Your task to perform on an android device: turn off notifications settings in the gmail app Image 0: 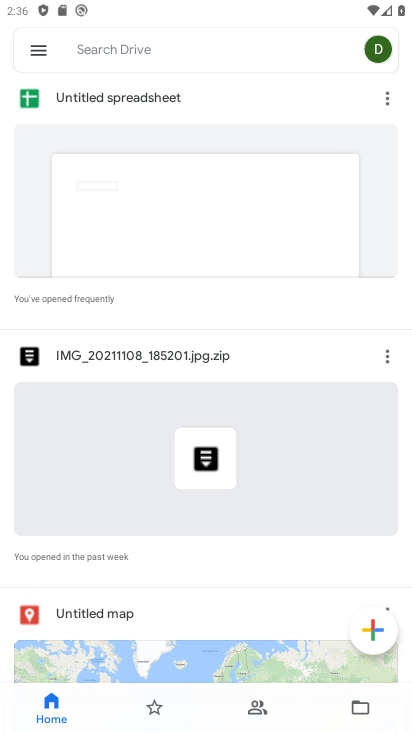
Step 0: press home button
Your task to perform on an android device: turn off notifications settings in the gmail app Image 1: 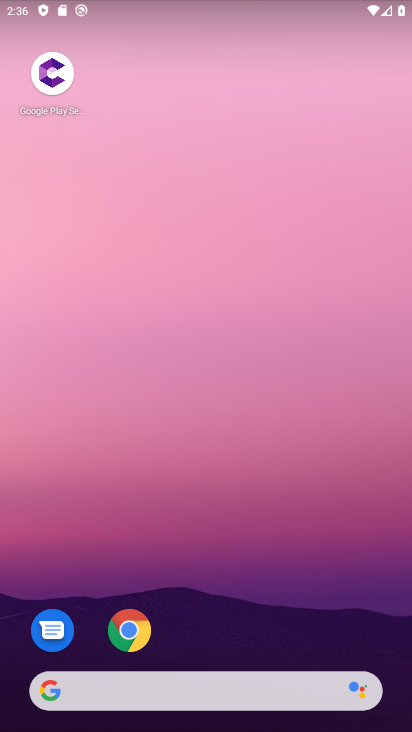
Step 1: drag from (153, 658) to (260, 136)
Your task to perform on an android device: turn off notifications settings in the gmail app Image 2: 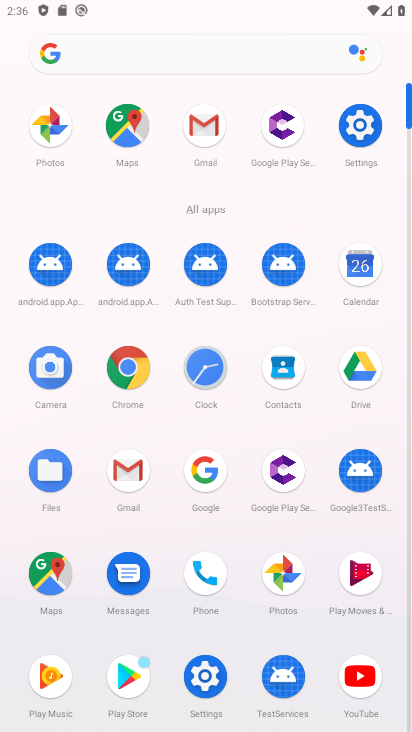
Step 2: click (119, 468)
Your task to perform on an android device: turn off notifications settings in the gmail app Image 3: 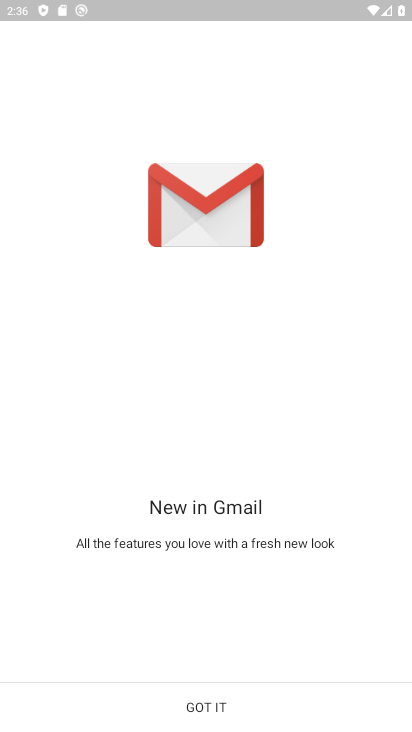
Step 3: click (229, 703)
Your task to perform on an android device: turn off notifications settings in the gmail app Image 4: 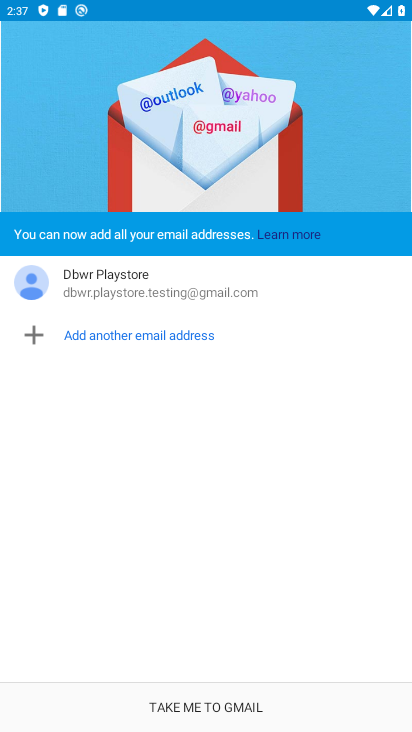
Step 4: click (239, 700)
Your task to perform on an android device: turn off notifications settings in the gmail app Image 5: 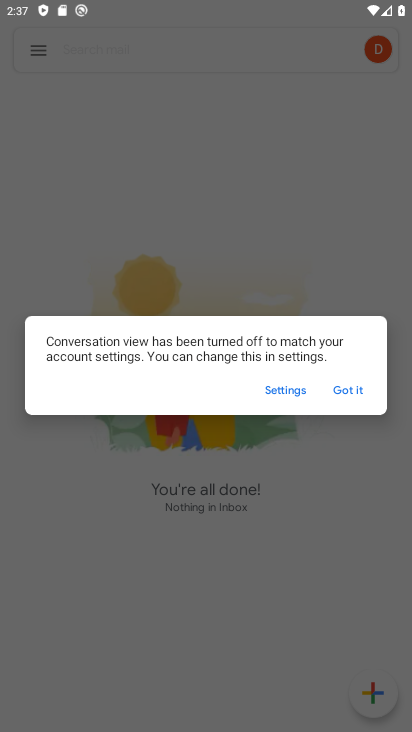
Step 5: click (347, 397)
Your task to perform on an android device: turn off notifications settings in the gmail app Image 6: 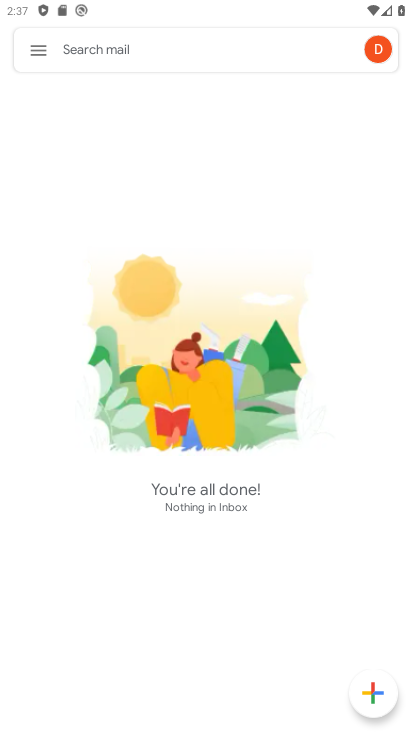
Step 6: click (55, 59)
Your task to perform on an android device: turn off notifications settings in the gmail app Image 7: 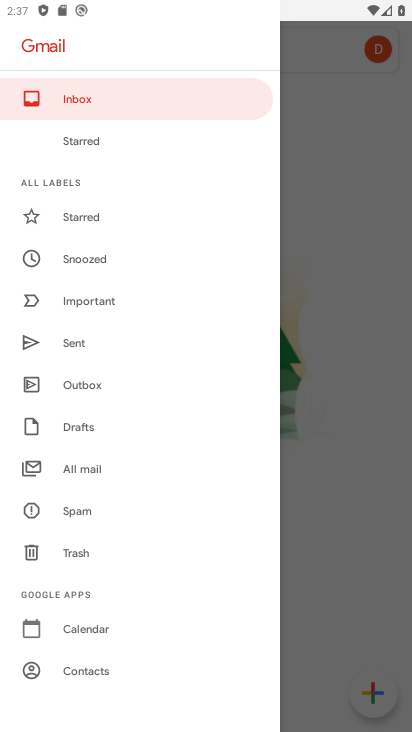
Step 7: drag from (133, 690) to (215, 346)
Your task to perform on an android device: turn off notifications settings in the gmail app Image 8: 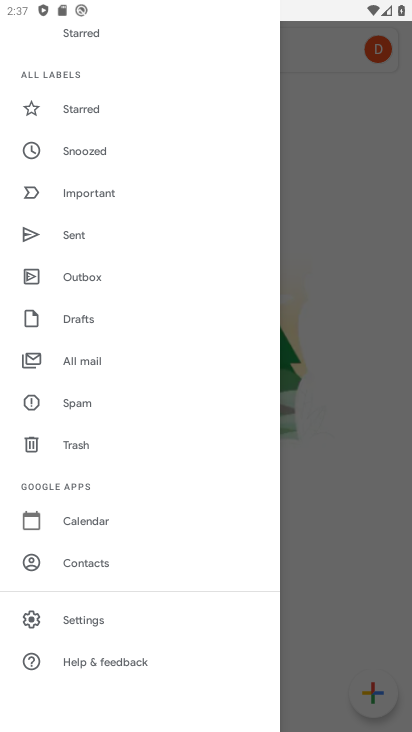
Step 8: click (138, 625)
Your task to perform on an android device: turn off notifications settings in the gmail app Image 9: 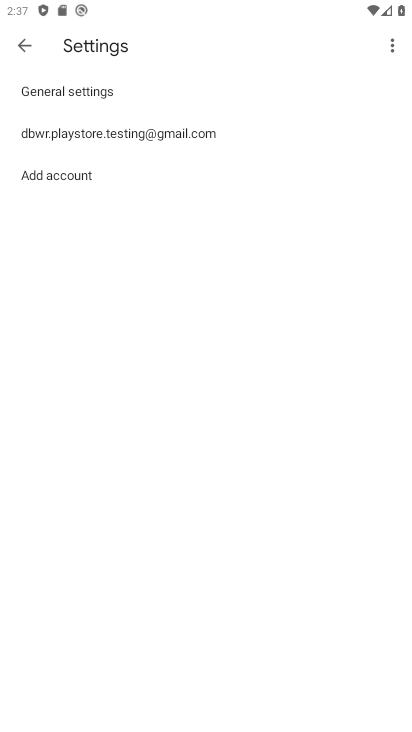
Step 9: click (172, 126)
Your task to perform on an android device: turn off notifications settings in the gmail app Image 10: 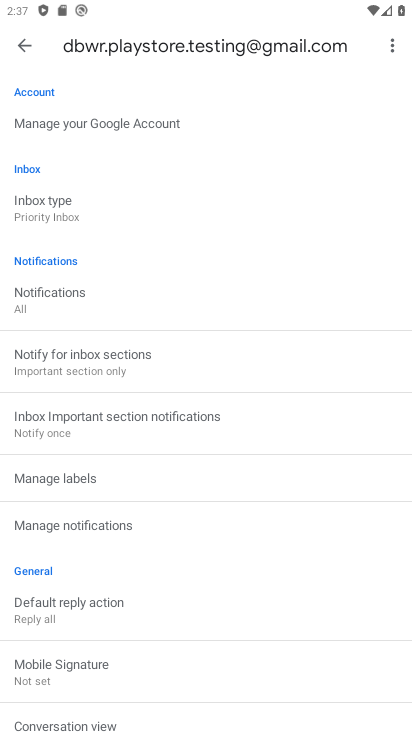
Step 10: drag from (166, 629) to (228, 417)
Your task to perform on an android device: turn off notifications settings in the gmail app Image 11: 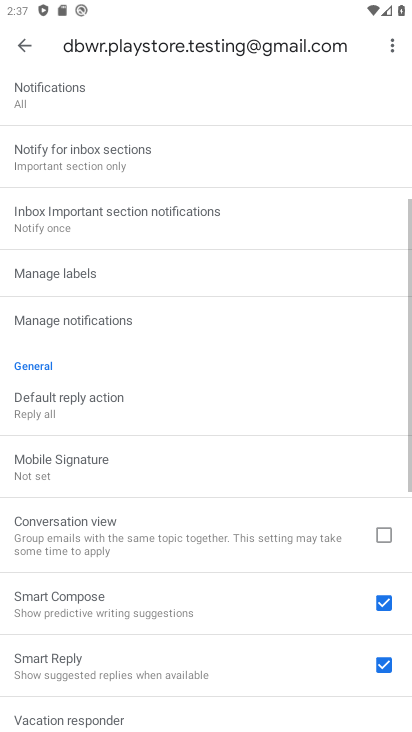
Step 11: click (141, 339)
Your task to perform on an android device: turn off notifications settings in the gmail app Image 12: 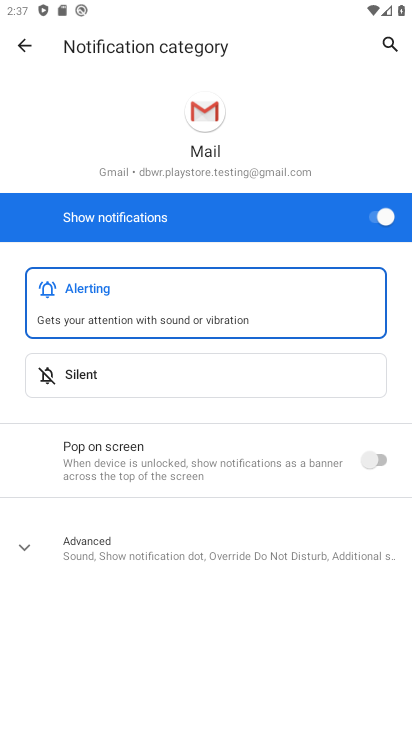
Step 12: click (369, 208)
Your task to perform on an android device: turn off notifications settings in the gmail app Image 13: 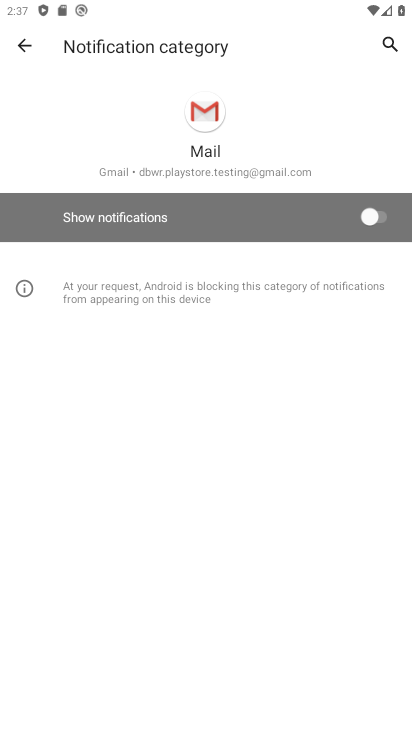
Step 13: task complete